Your task to perform on an android device: When is my next appointment? Image 0: 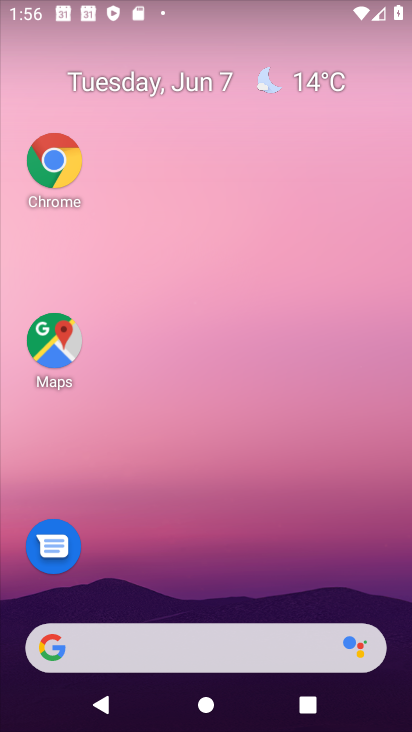
Step 0: drag from (202, 610) to (208, 174)
Your task to perform on an android device: When is my next appointment? Image 1: 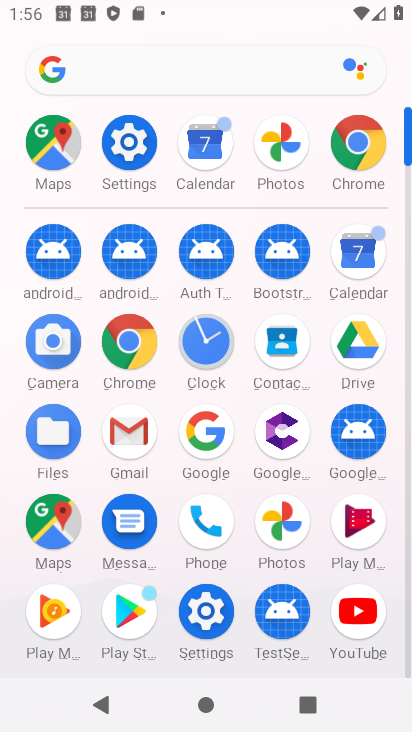
Step 1: click (354, 261)
Your task to perform on an android device: When is my next appointment? Image 2: 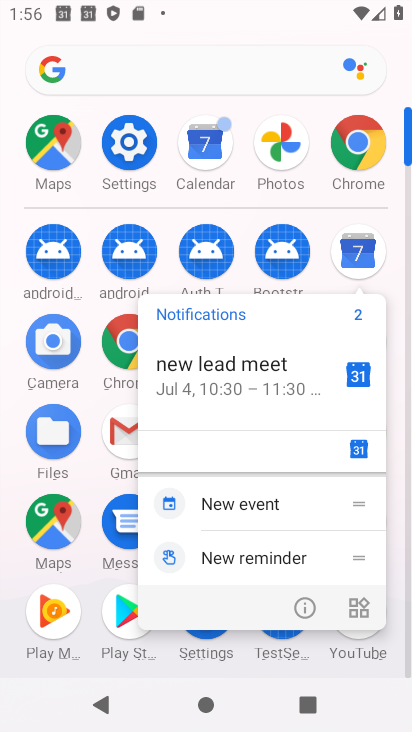
Step 2: click (298, 608)
Your task to perform on an android device: When is my next appointment? Image 3: 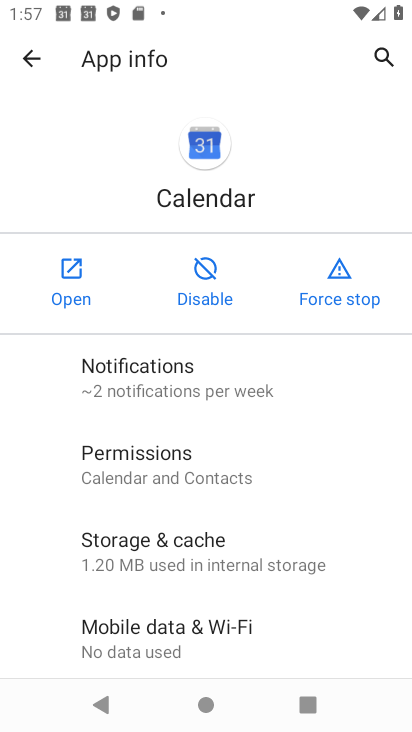
Step 3: click (58, 281)
Your task to perform on an android device: When is my next appointment? Image 4: 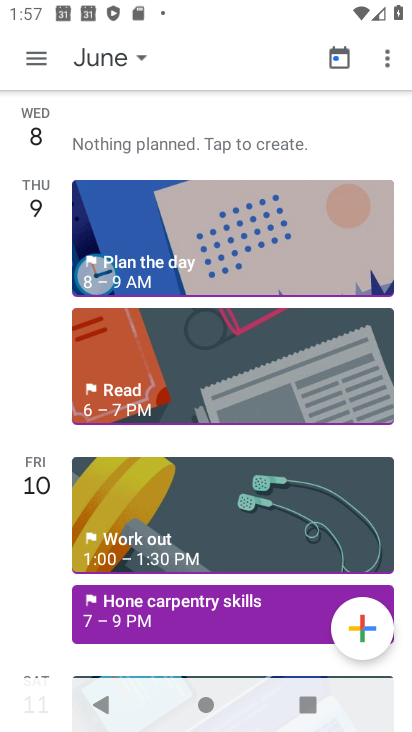
Step 4: drag from (204, 612) to (185, 322)
Your task to perform on an android device: When is my next appointment? Image 5: 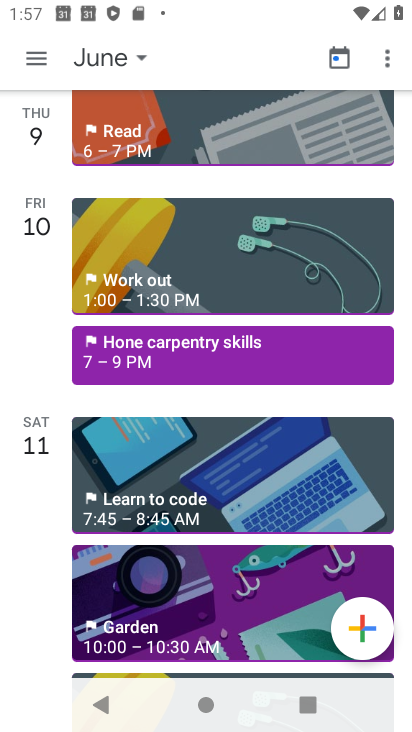
Step 5: click (125, 64)
Your task to perform on an android device: When is my next appointment? Image 6: 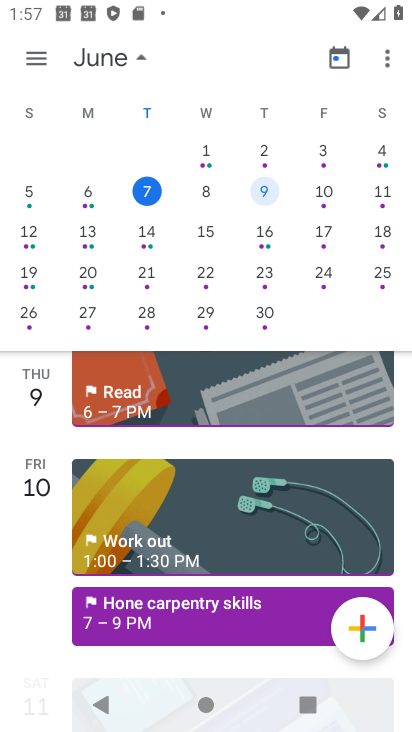
Step 6: click (162, 181)
Your task to perform on an android device: When is my next appointment? Image 7: 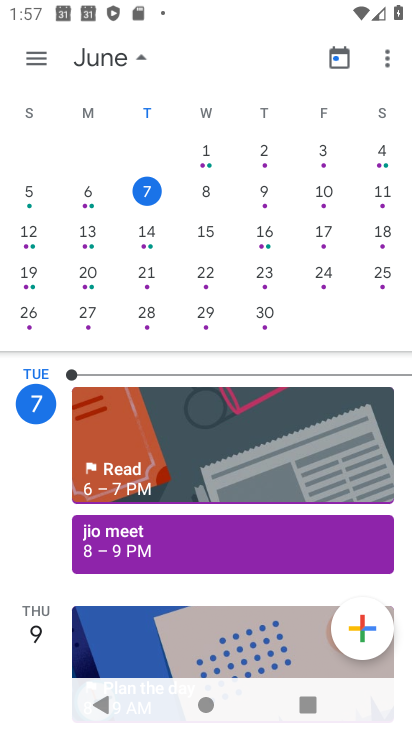
Step 7: click (142, 197)
Your task to perform on an android device: When is my next appointment? Image 8: 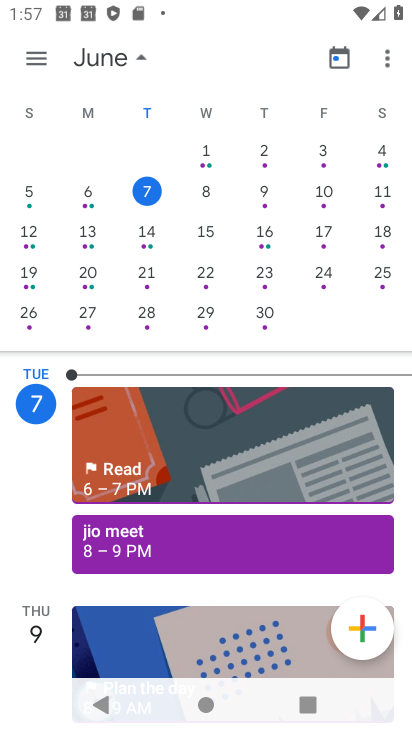
Step 8: drag from (242, 382) to (251, 155)
Your task to perform on an android device: When is my next appointment? Image 9: 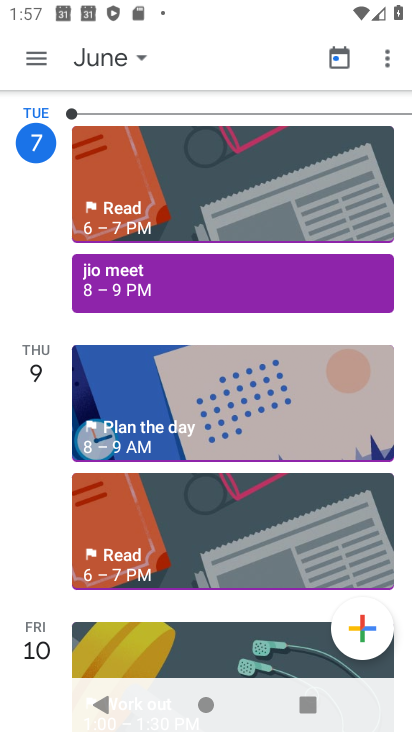
Step 9: click (130, 286)
Your task to perform on an android device: When is my next appointment? Image 10: 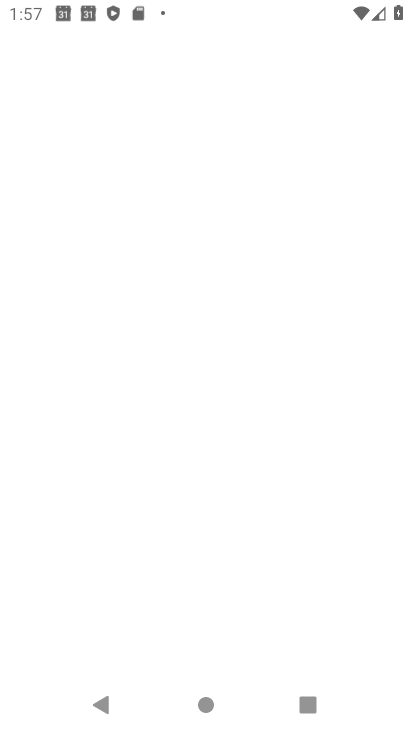
Step 10: task complete